Your task to perform on an android device: refresh tabs in the chrome app Image 0: 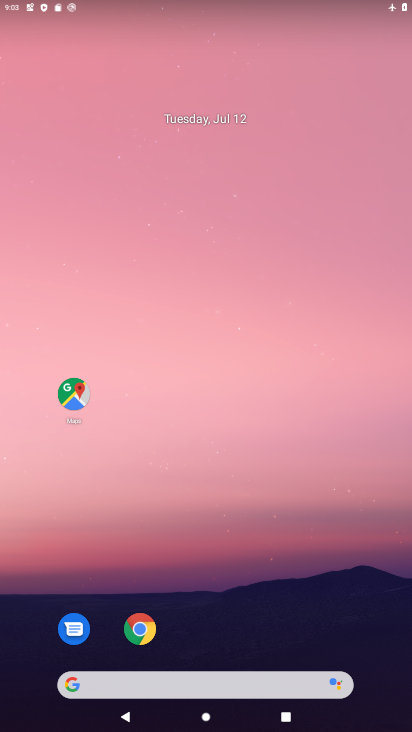
Step 0: drag from (188, 607) to (198, 220)
Your task to perform on an android device: refresh tabs in the chrome app Image 1: 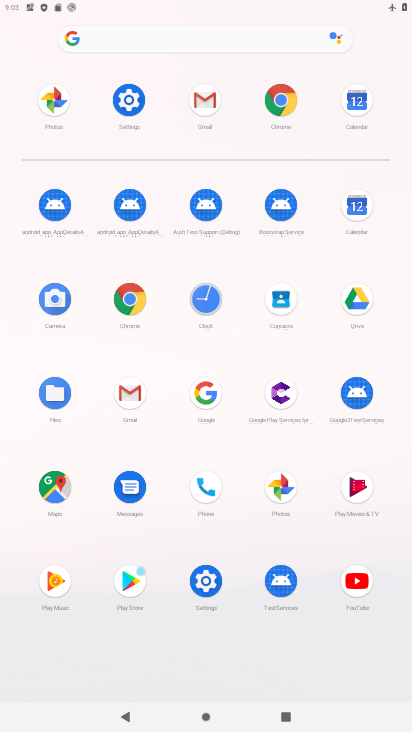
Step 1: click (291, 93)
Your task to perform on an android device: refresh tabs in the chrome app Image 2: 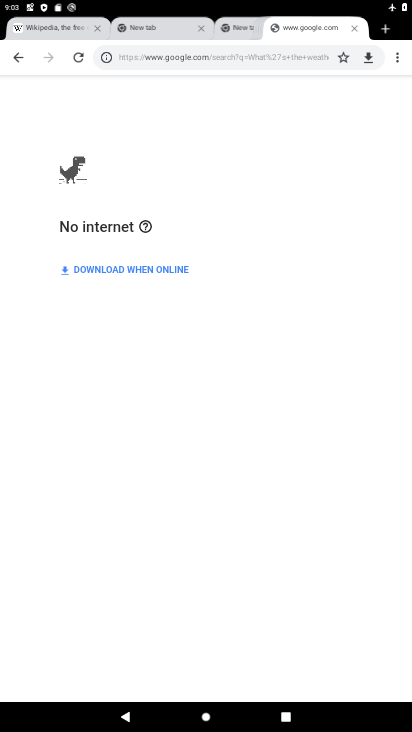
Step 2: click (405, 55)
Your task to perform on an android device: refresh tabs in the chrome app Image 3: 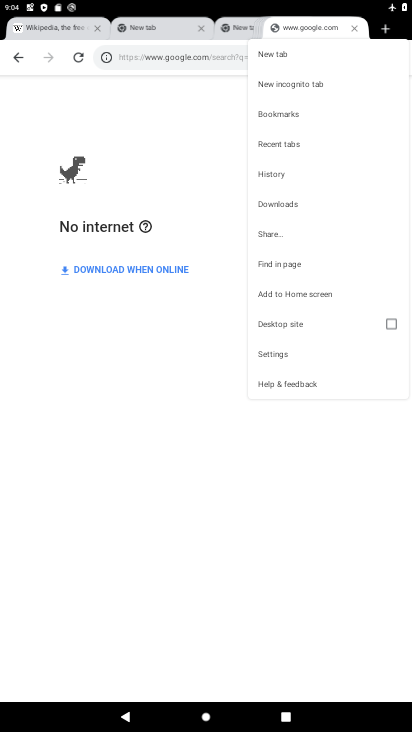
Step 3: click (78, 57)
Your task to perform on an android device: refresh tabs in the chrome app Image 4: 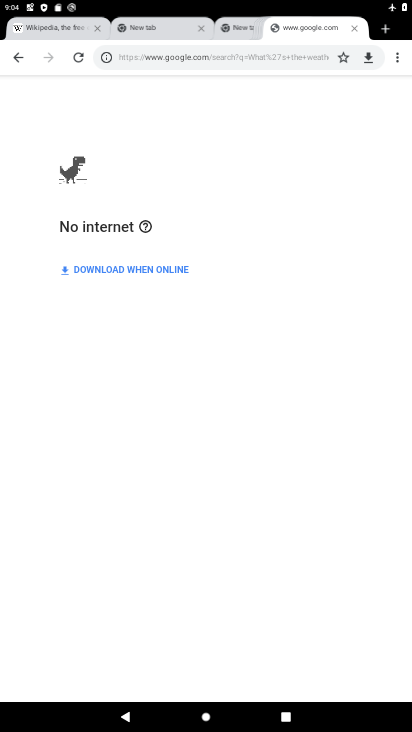
Step 4: click (78, 57)
Your task to perform on an android device: refresh tabs in the chrome app Image 5: 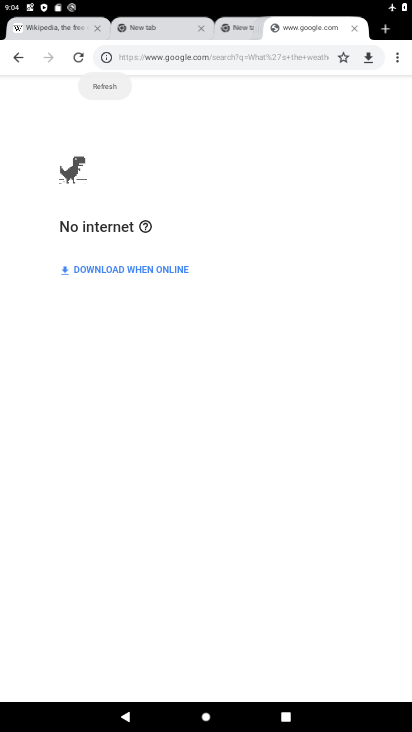
Step 5: click (78, 57)
Your task to perform on an android device: refresh tabs in the chrome app Image 6: 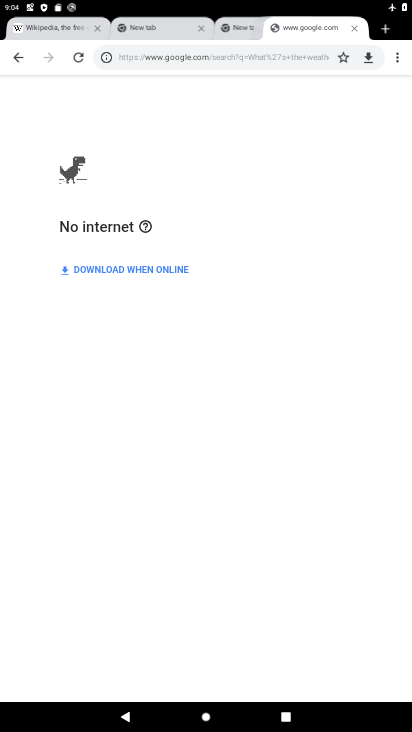
Step 6: click (78, 57)
Your task to perform on an android device: refresh tabs in the chrome app Image 7: 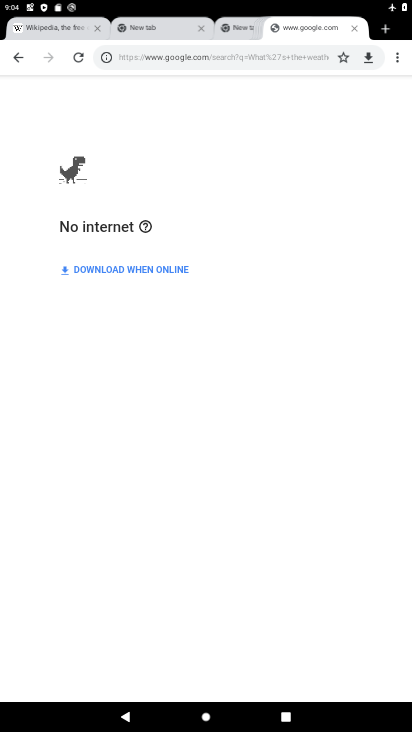
Step 7: task complete